Your task to perform on an android device: turn off javascript in the chrome app Image 0: 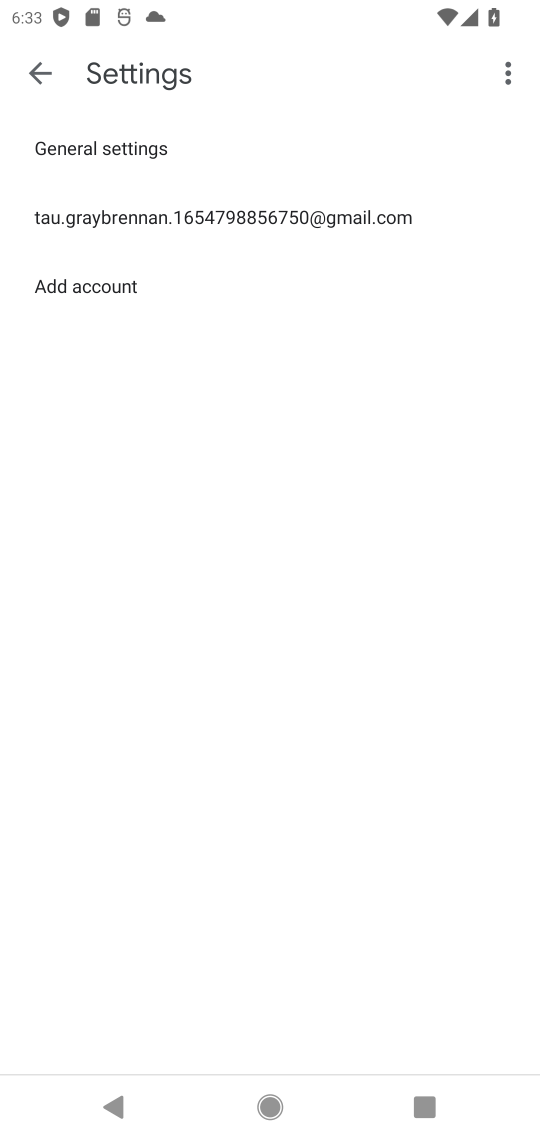
Step 0: click (43, 67)
Your task to perform on an android device: turn off javascript in the chrome app Image 1: 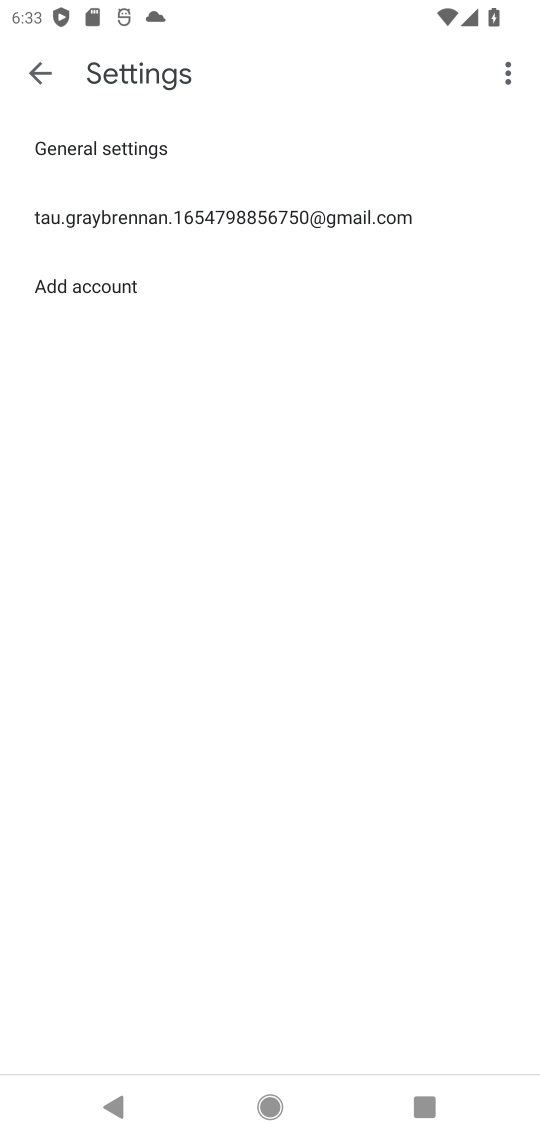
Step 1: click (31, 77)
Your task to perform on an android device: turn off javascript in the chrome app Image 2: 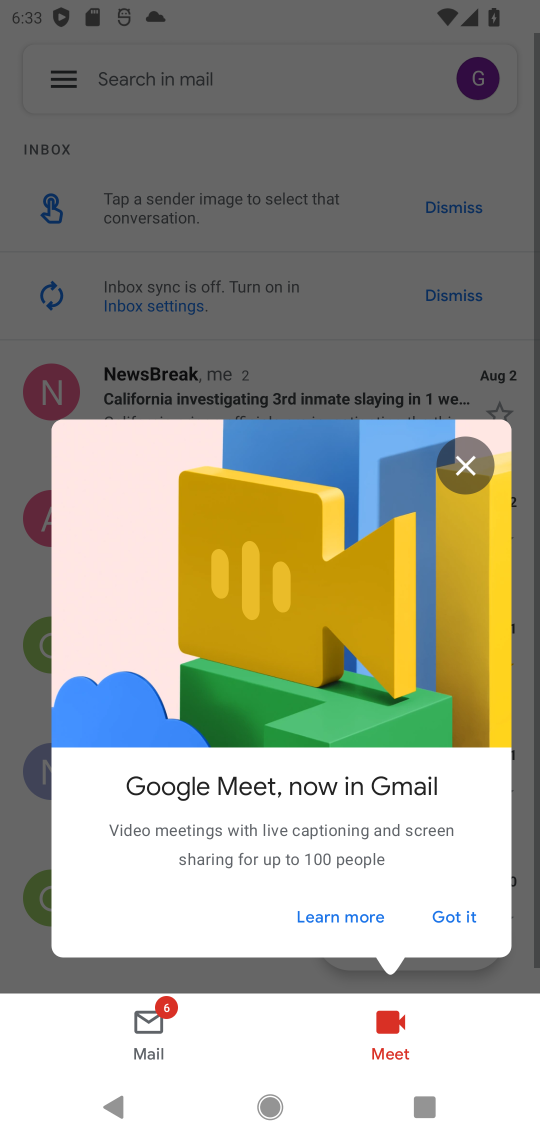
Step 2: press back button
Your task to perform on an android device: turn off javascript in the chrome app Image 3: 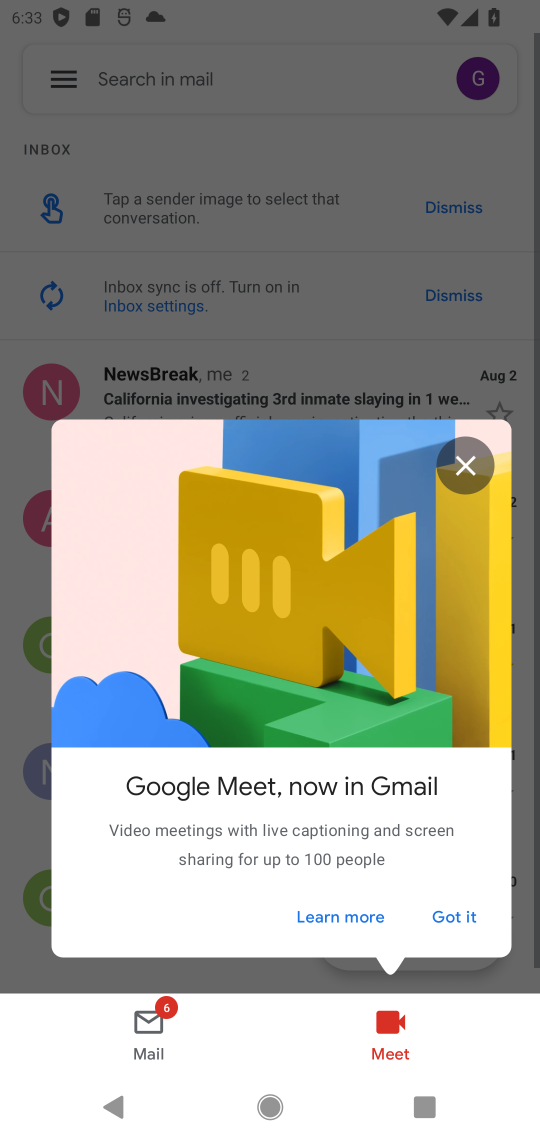
Step 3: press back button
Your task to perform on an android device: turn off javascript in the chrome app Image 4: 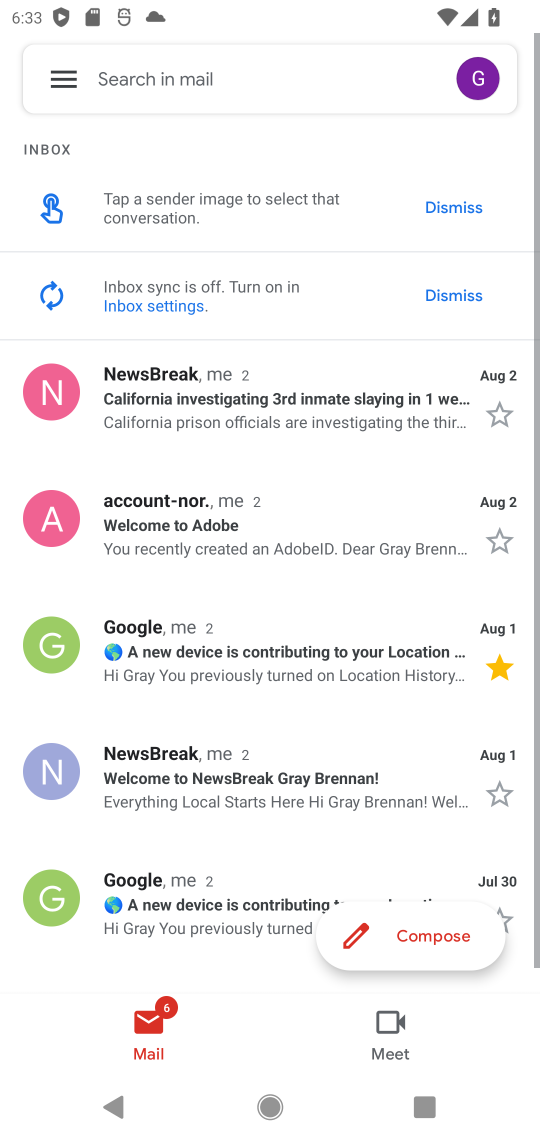
Step 4: click (462, 479)
Your task to perform on an android device: turn off javascript in the chrome app Image 5: 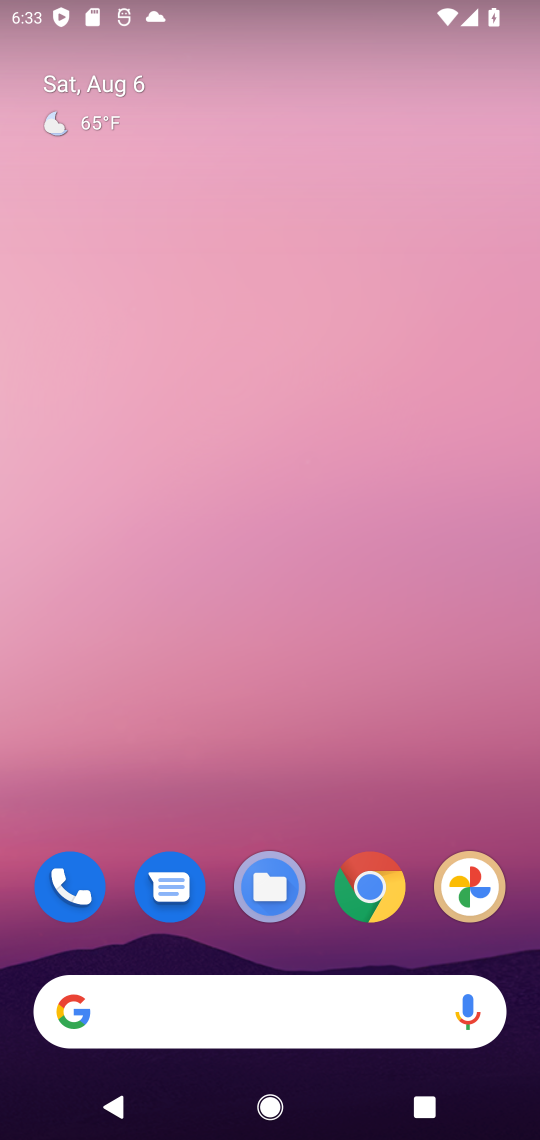
Step 5: drag from (182, 387) to (171, 179)
Your task to perform on an android device: turn off javascript in the chrome app Image 6: 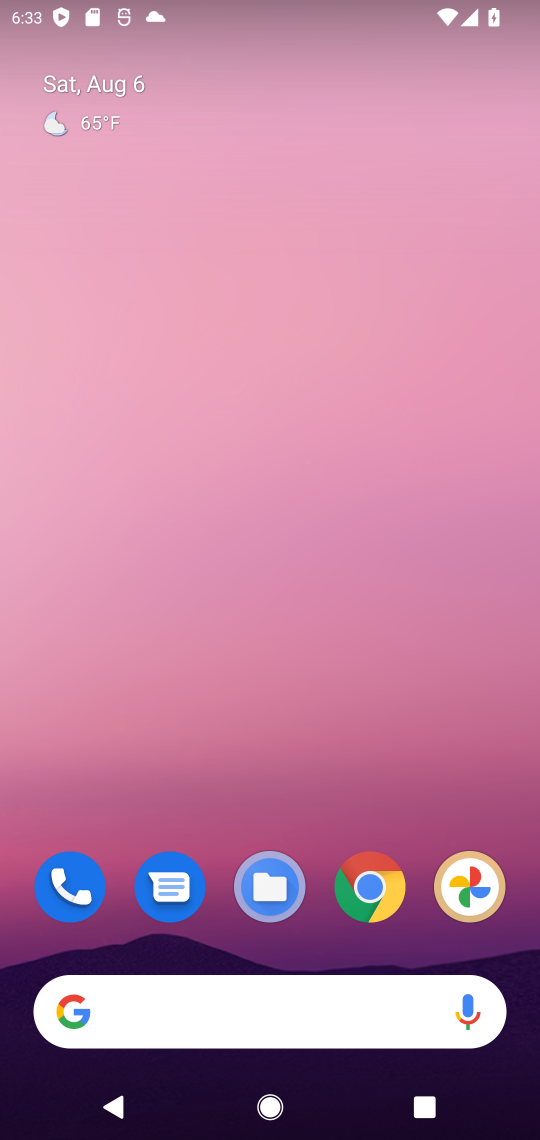
Step 6: click (218, 196)
Your task to perform on an android device: turn off javascript in the chrome app Image 7: 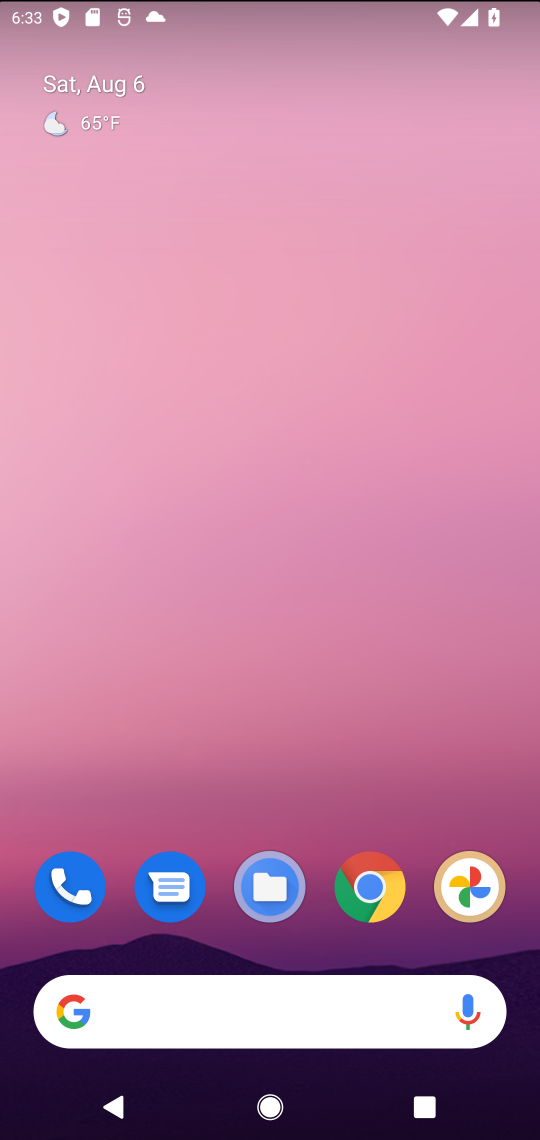
Step 7: drag from (337, 743) to (247, 386)
Your task to perform on an android device: turn off javascript in the chrome app Image 8: 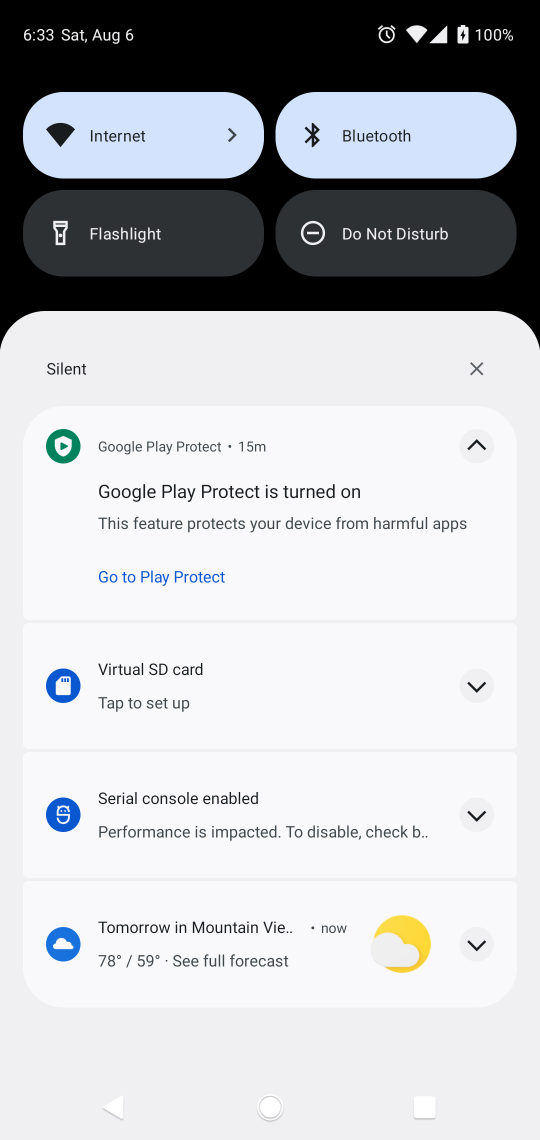
Step 8: press back button
Your task to perform on an android device: turn off javascript in the chrome app Image 9: 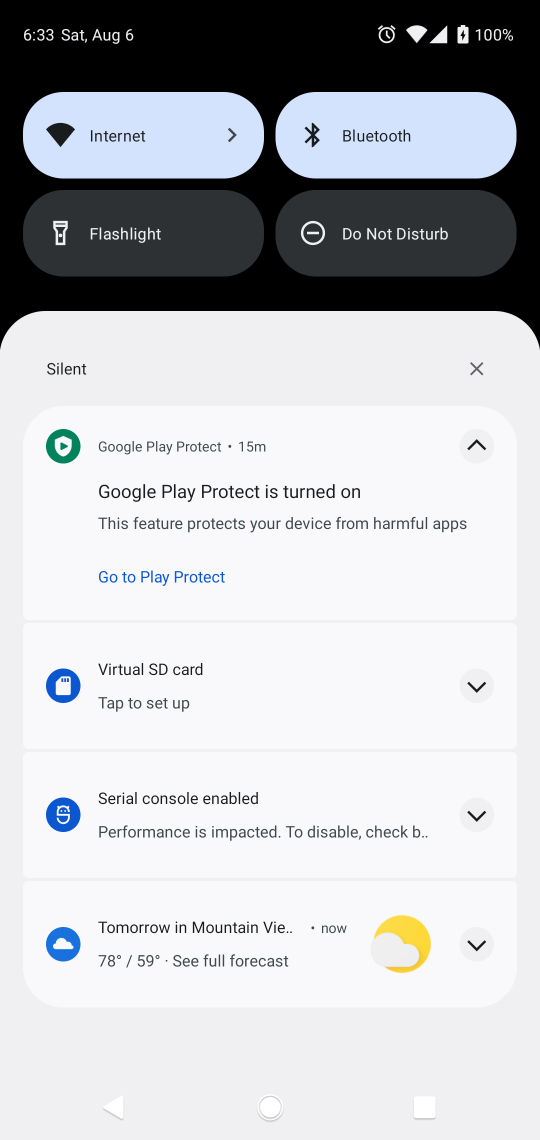
Step 9: press back button
Your task to perform on an android device: turn off javascript in the chrome app Image 10: 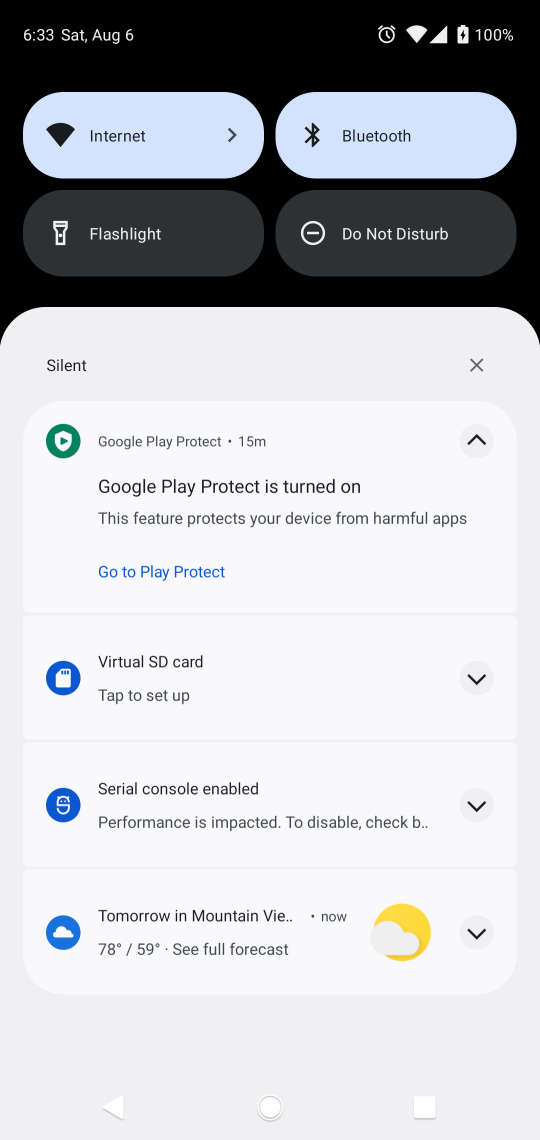
Step 10: press back button
Your task to perform on an android device: turn off javascript in the chrome app Image 11: 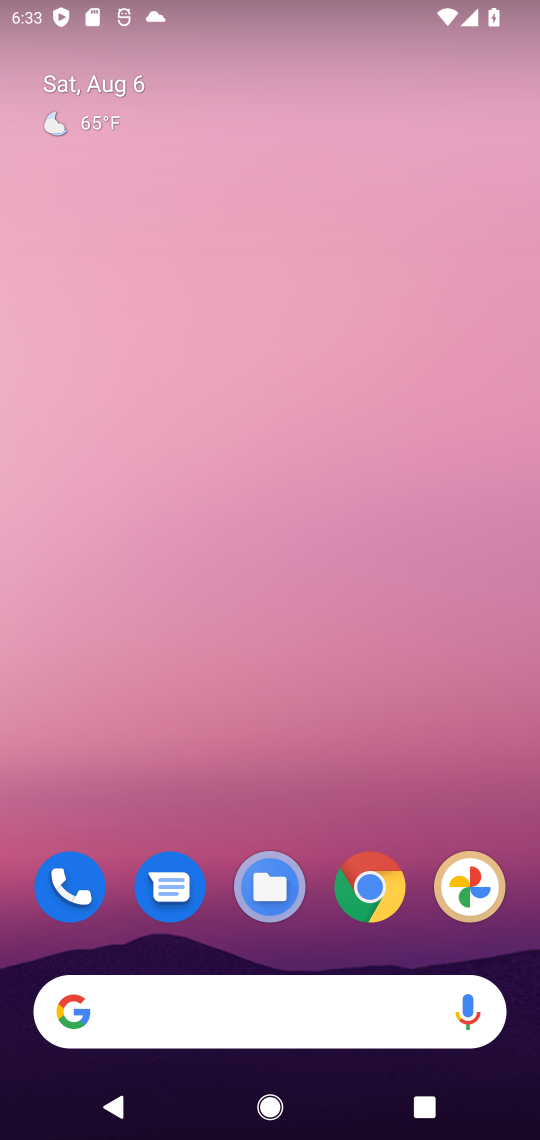
Step 11: drag from (347, 842) to (248, 378)
Your task to perform on an android device: turn off javascript in the chrome app Image 12: 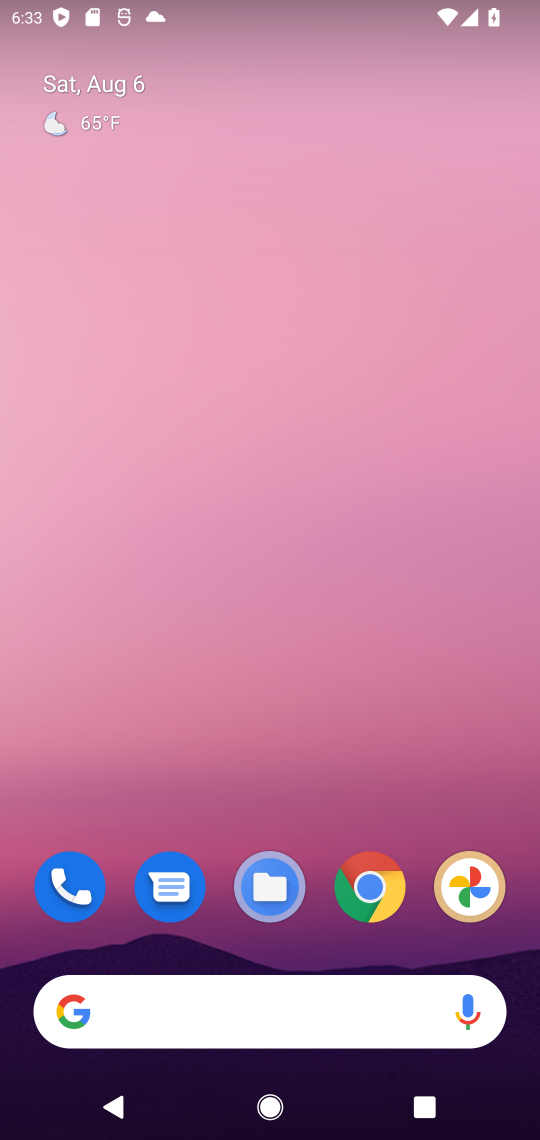
Step 12: drag from (325, 683) to (234, 361)
Your task to perform on an android device: turn off javascript in the chrome app Image 13: 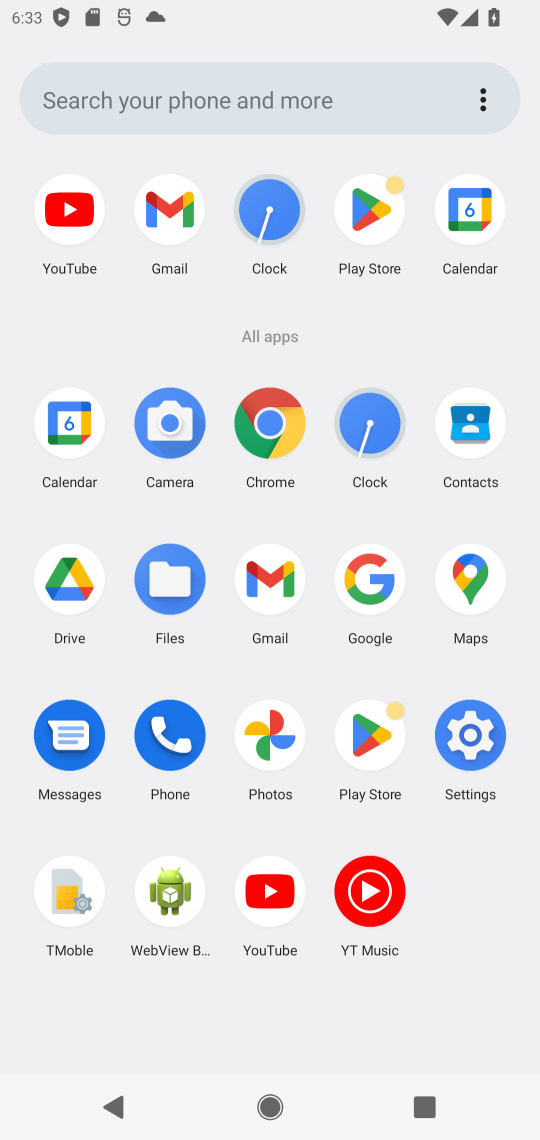
Step 13: drag from (257, 745) to (215, 239)
Your task to perform on an android device: turn off javascript in the chrome app Image 14: 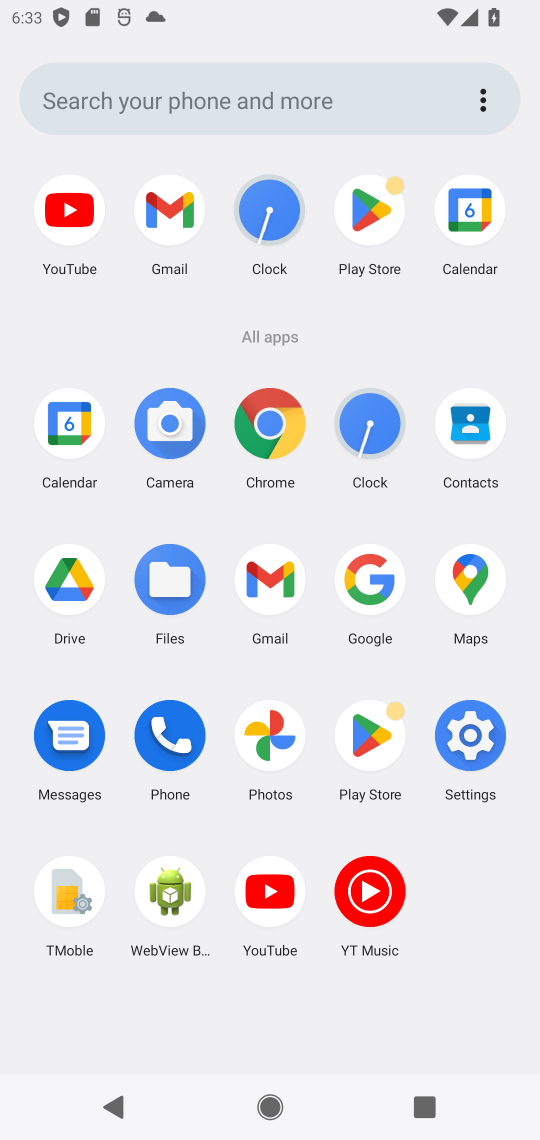
Step 14: click (275, 418)
Your task to perform on an android device: turn off javascript in the chrome app Image 15: 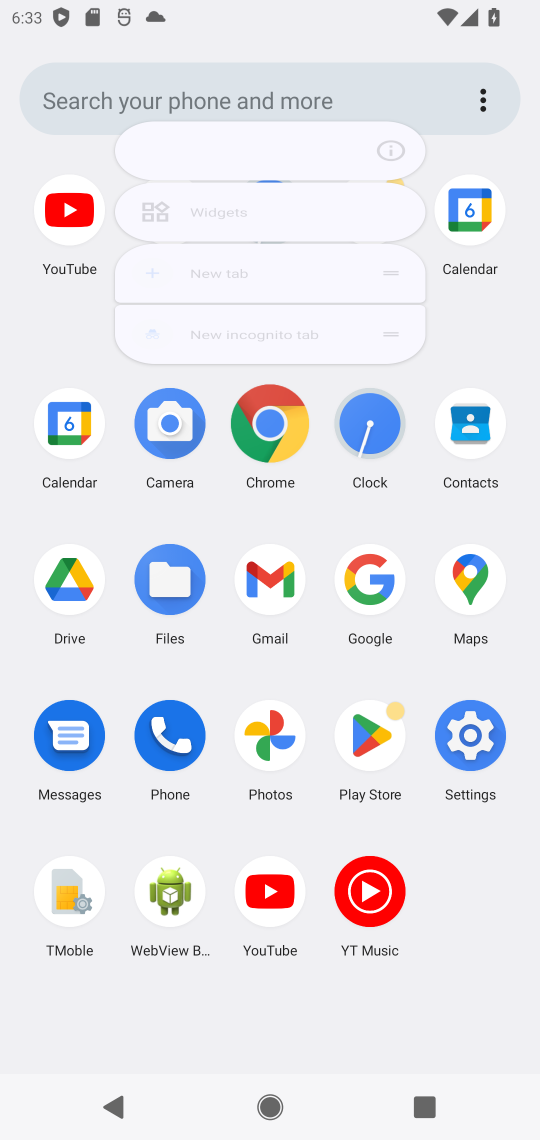
Step 15: click (273, 419)
Your task to perform on an android device: turn off javascript in the chrome app Image 16: 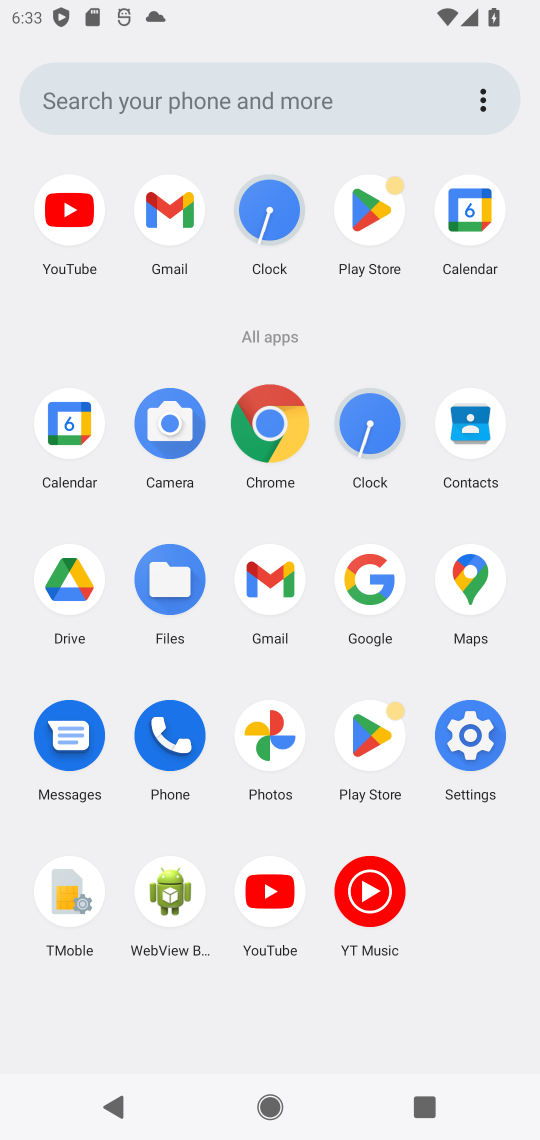
Step 16: click (288, 421)
Your task to perform on an android device: turn off javascript in the chrome app Image 17: 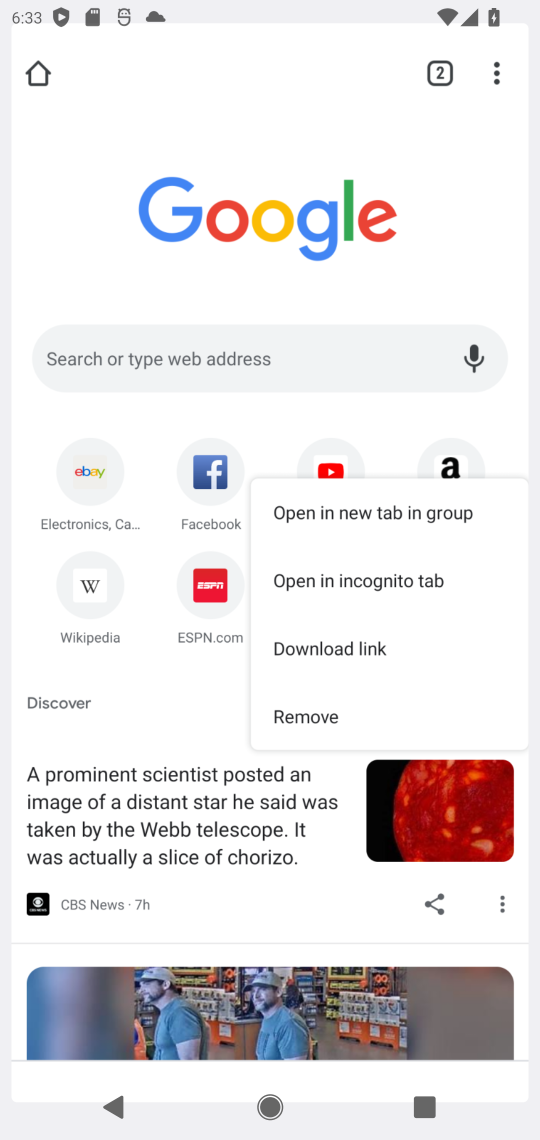
Step 17: click (284, 426)
Your task to perform on an android device: turn off javascript in the chrome app Image 18: 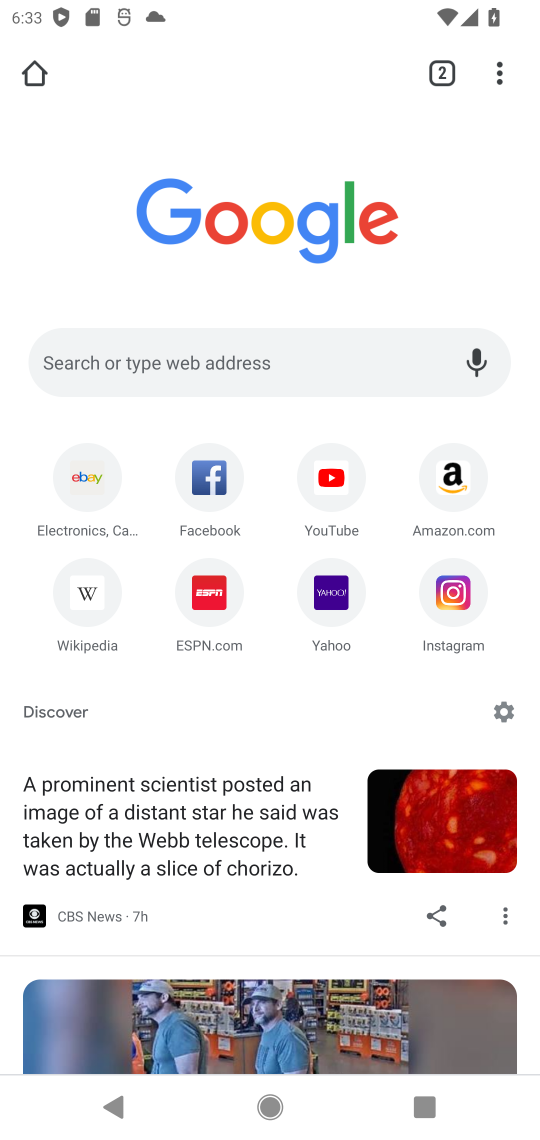
Step 18: drag from (499, 70) to (234, 766)
Your task to perform on an android device: turn off javascript in the chrome app Image 19: 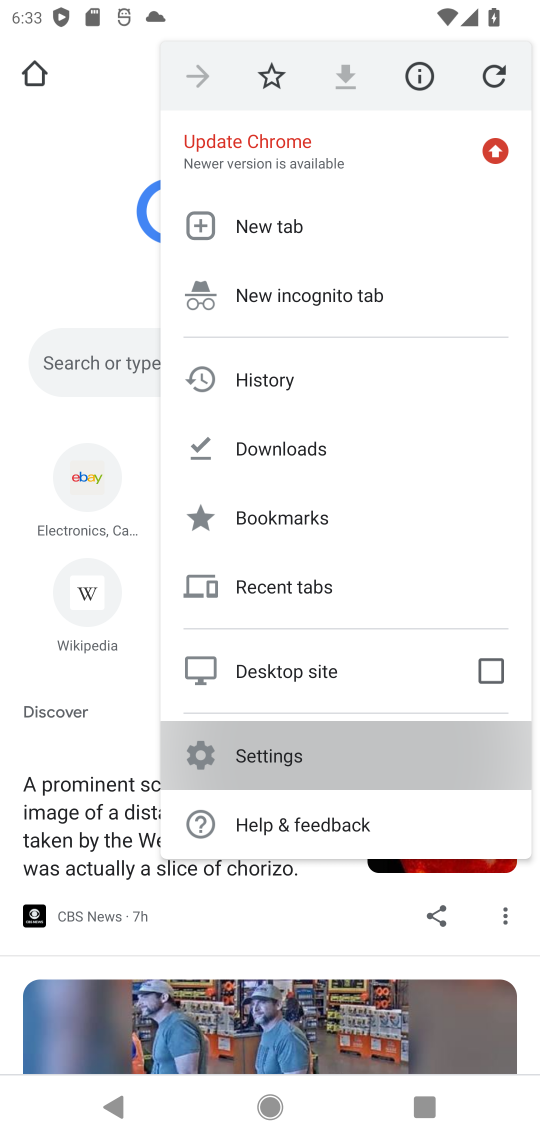
Step 19: click (234, 766)
Your task to perform on an android device: turn off javascript in the chrome app Image 20: 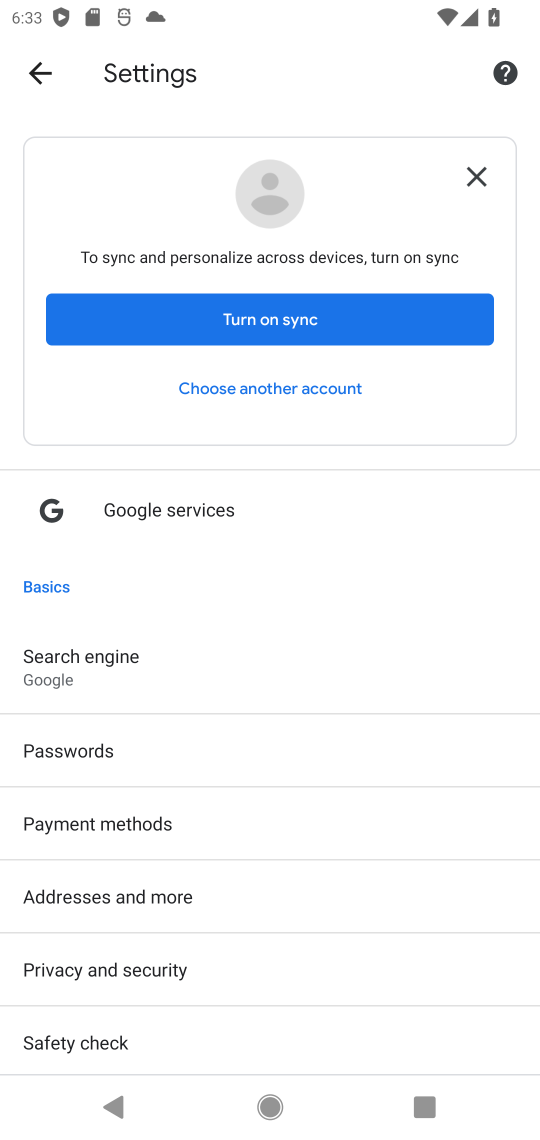
Step 20: drag from (166, 879) to (93, 329)
Your task to perform on an android device: turn off javascript in the chrome app Image 21: 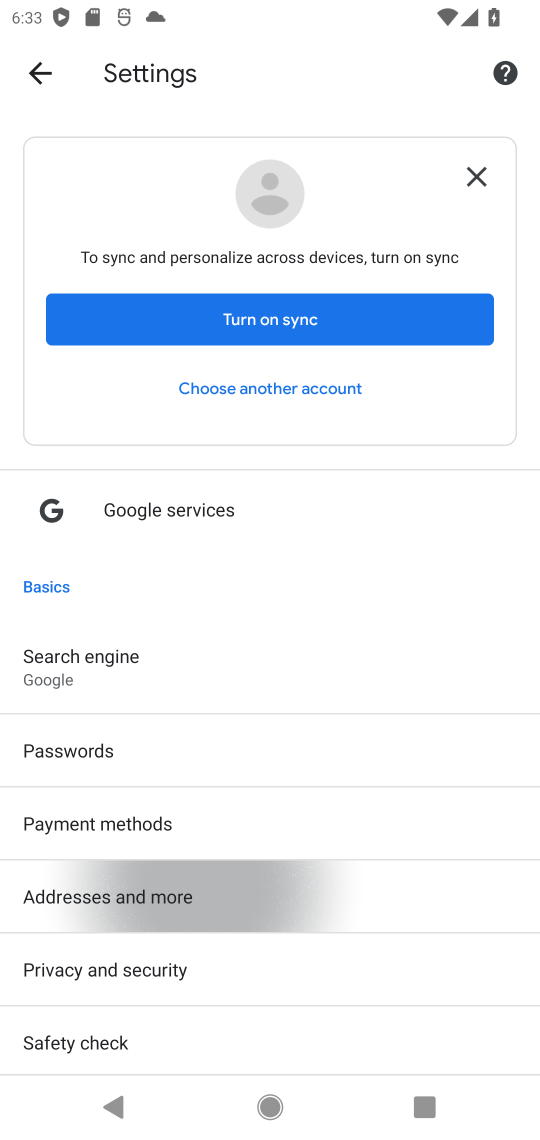
Step 21: drag from (178, 604) to (146, 336)
Your task to perform on an android device: turn off javascript in the chrome app Image 22: 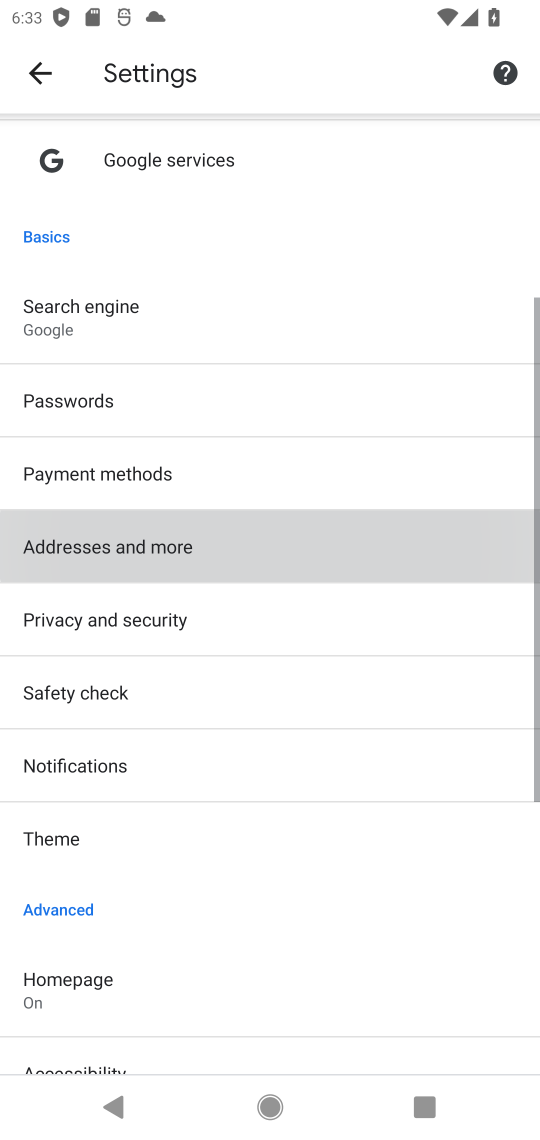
Step 22: drag from (292, 844) to (302, 397)
Your task to perform on an android device: turn off javascript in the chrome app Image 23: 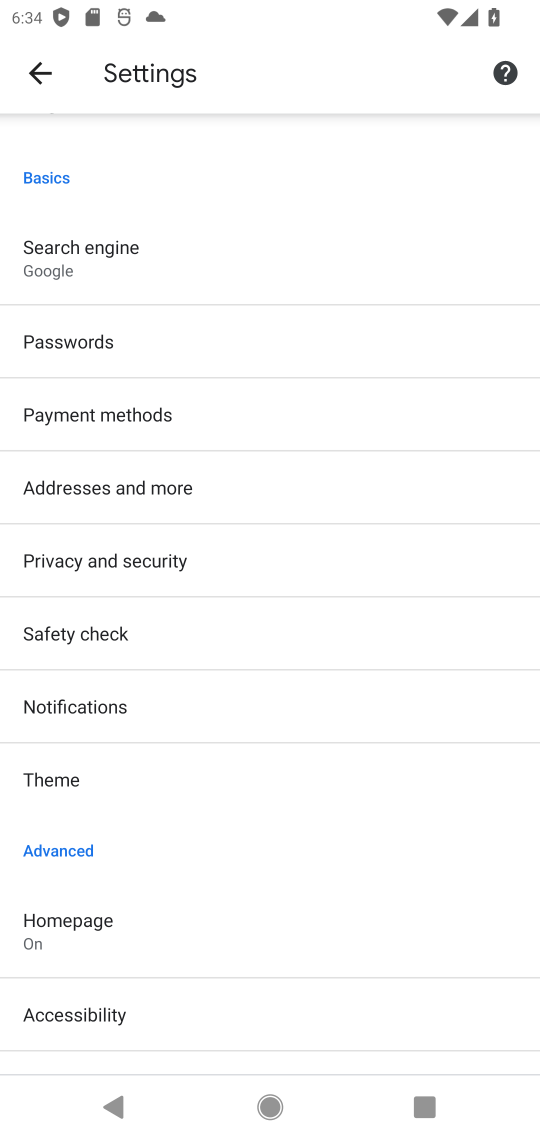
Step 23: drag from (215, 826) to (229, 181)
Your task to perform on an android device: turn off javascript in the chrome app Image 24: 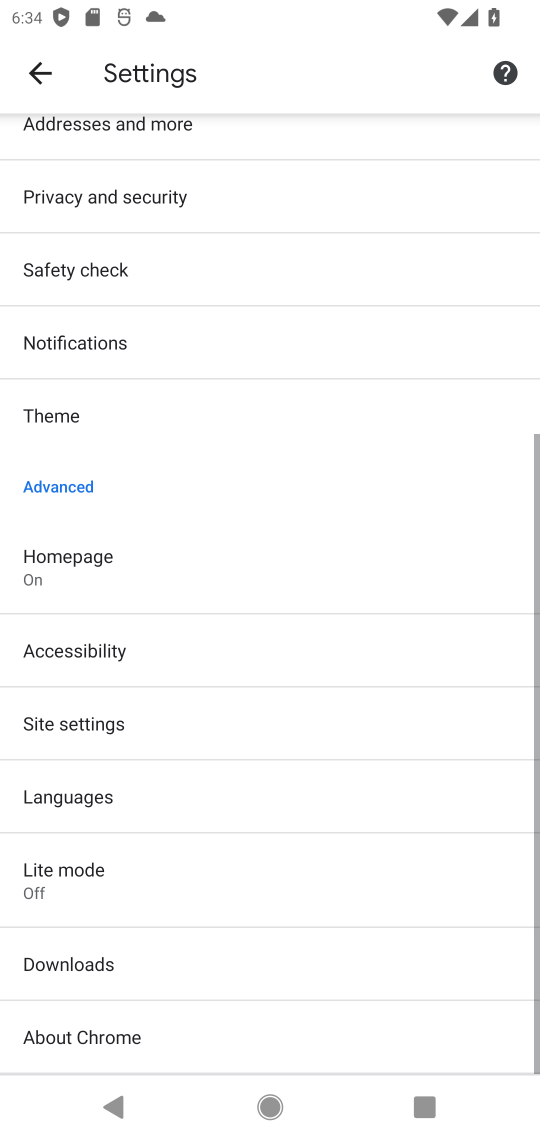
Step 24: drag from (239, 356) to (229, 243)
Your task to perform on an android device: turn off javascript in the chrome app Image 25: 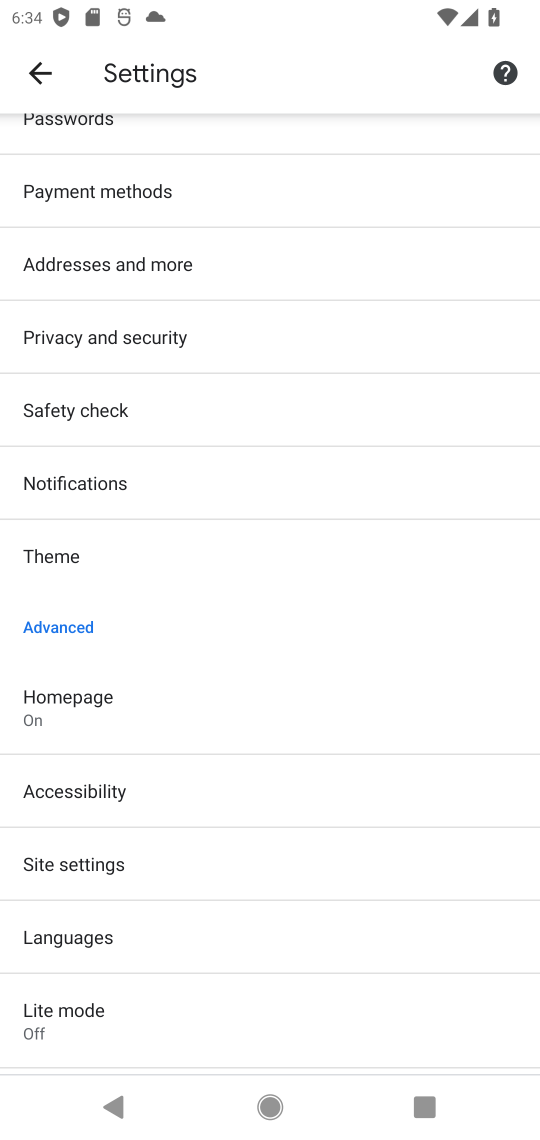
Step 25: click (69, 855)
Your task to perform on an android device: turn off javascript in the chrome app Image 26: 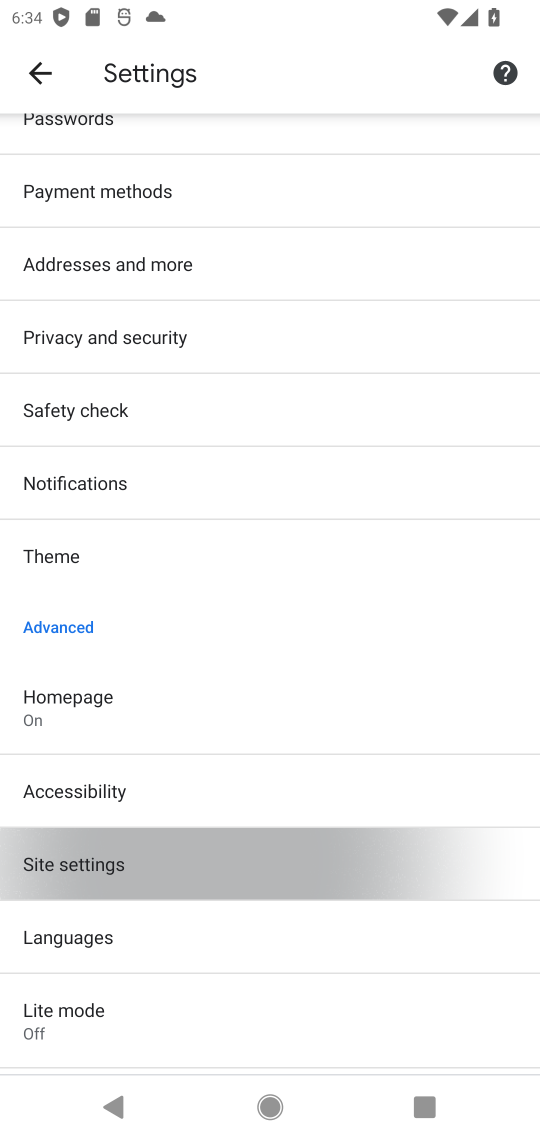
Step 26: click (69, 855)
Your task to perform on an android device: turn off javascript in the chrome app Image 27: 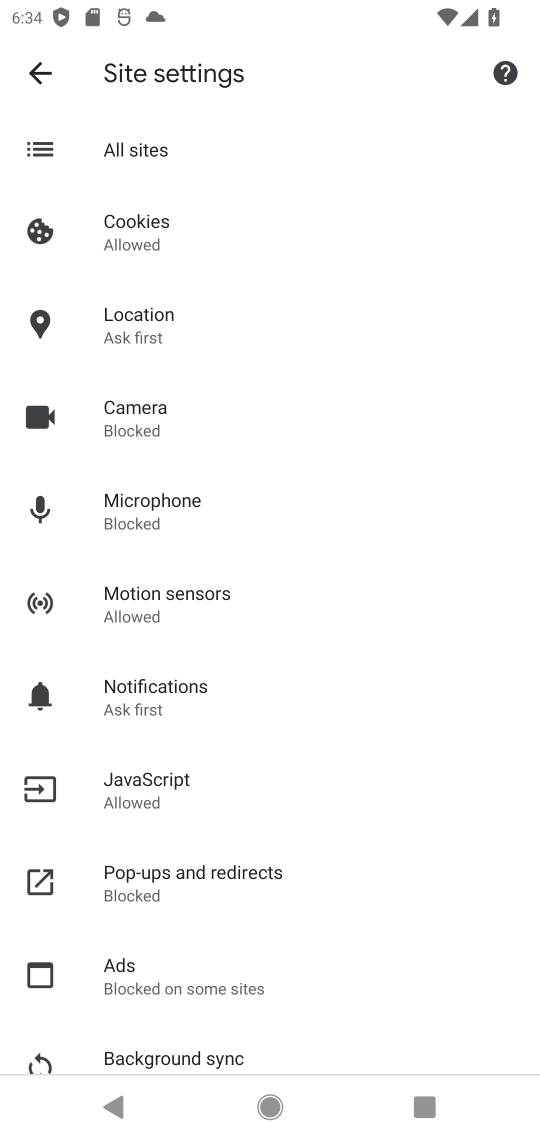
Step 27: click (137, 782)
Your task to perform on an android device: turn off javascript in the chrome app Image 28: 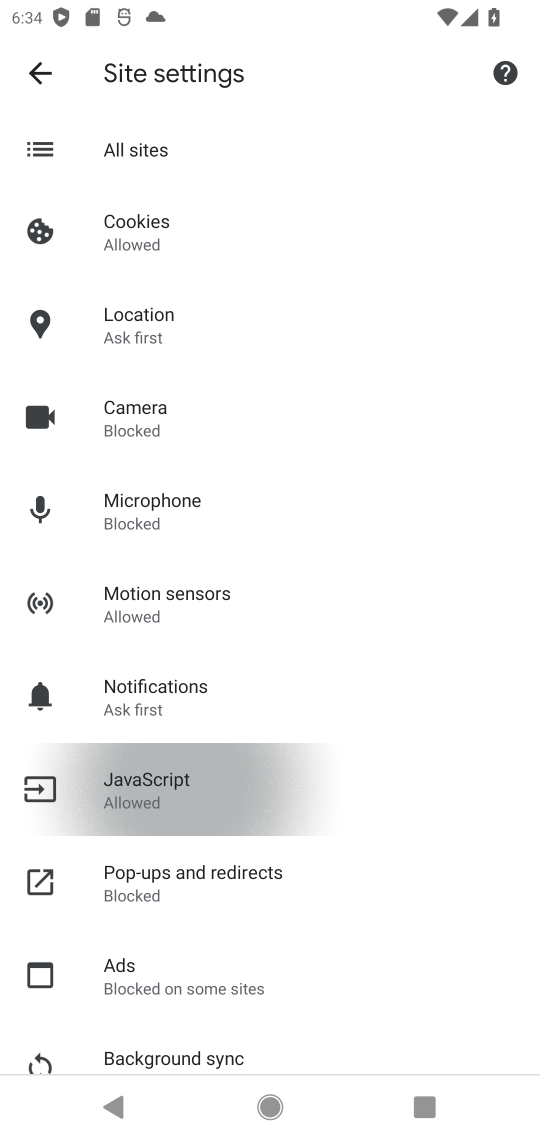
Step 28: click (137, 783)
Your task to perform on an android device: turn off javascript in the chrome app Image 29: 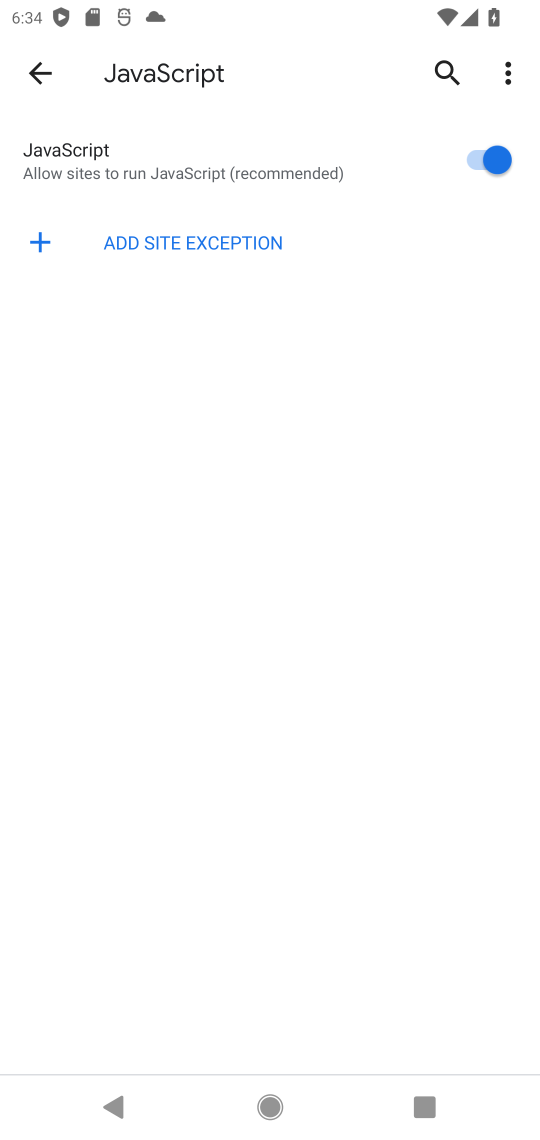
Step 29: click (499, 148)
Your task to perform on an android device: turn off javascript in the chrome app Image 30: 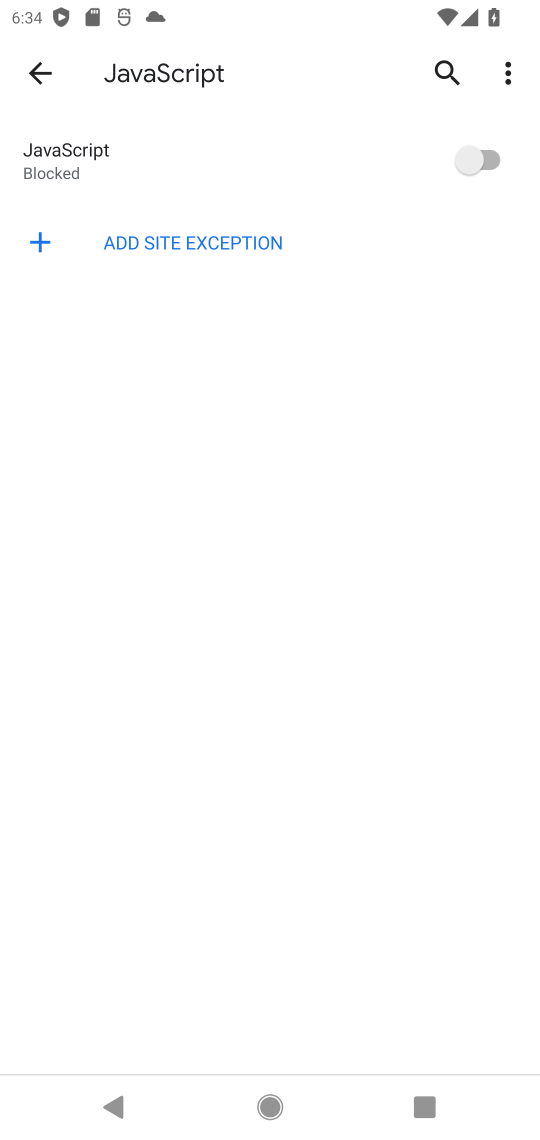
Step 30: task complete